Your task to perform on an android device: turn on the 12-hour format for clock Image 0: 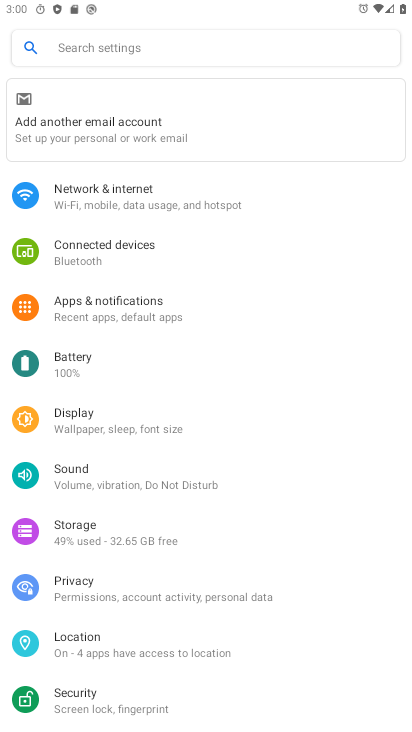
Step 0: press home button
Your task to perform on an android device: turn on the 12-hour format for clock Image 1: 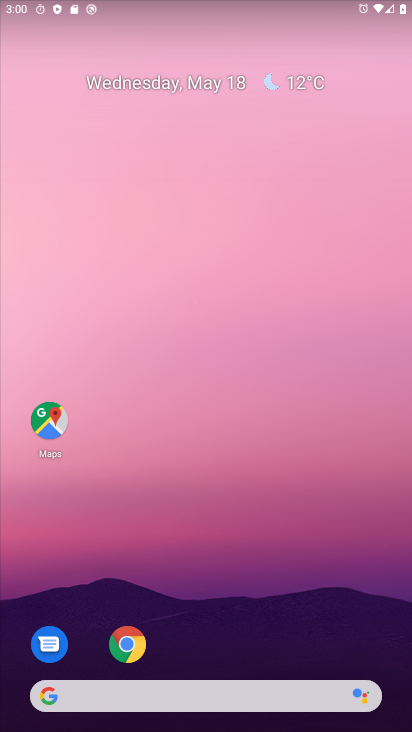
Step 1: drag from (389, 674) to (245, 16)
Your task to perform on an android device: turn on the 12-hour format for clock Image 2: 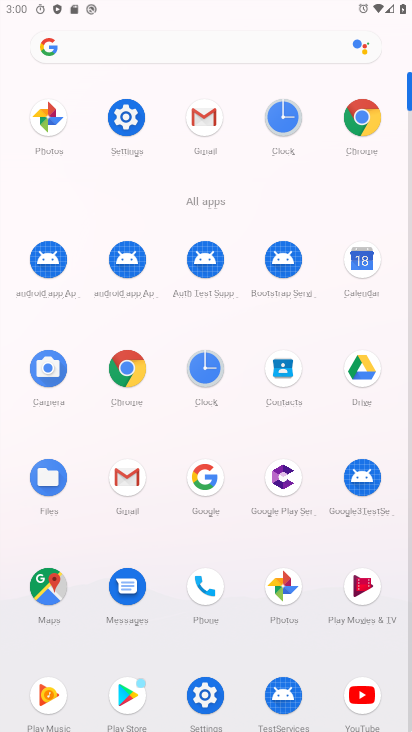
Step 2: click (209, 367)
Your task to perform on an android device: turn on the 12-hour format for clock Image 3: 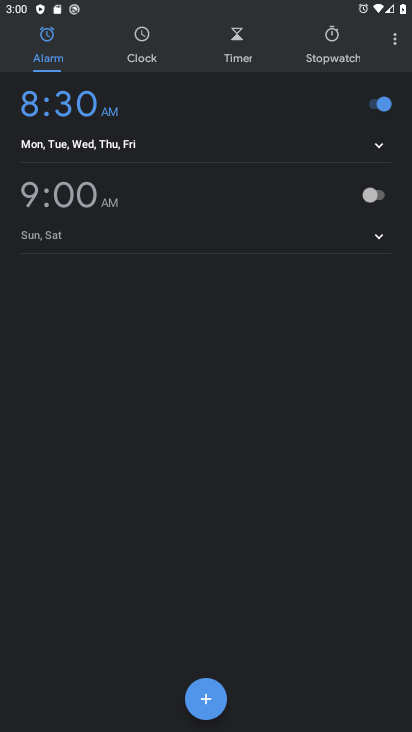
Step 3: click (397, 46)
Your task to perform on an android device: turn on the 12-hour format for clock Image 4: 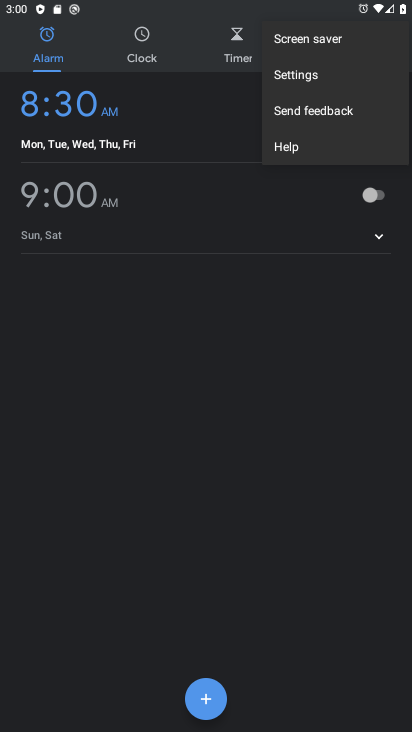
Step 4: click (306, 77)
Your task to perform on an android device: turn on the 12-hour format for clock Image 5: 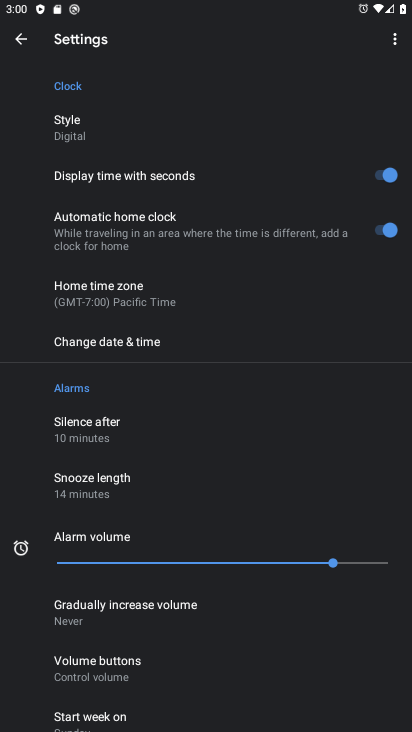
Step 5: click (76, 337)
Your task to perform on an android device: turn on the 12-hour format for clock Image 6: 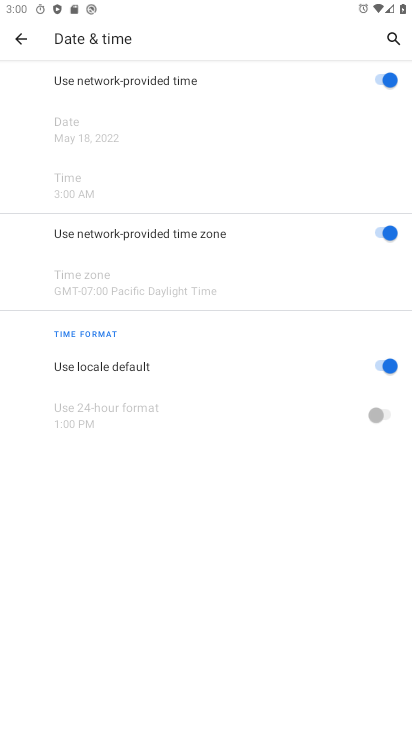
Step 6: task complete